Your task to perform on an android device: show emergency info Image 0: 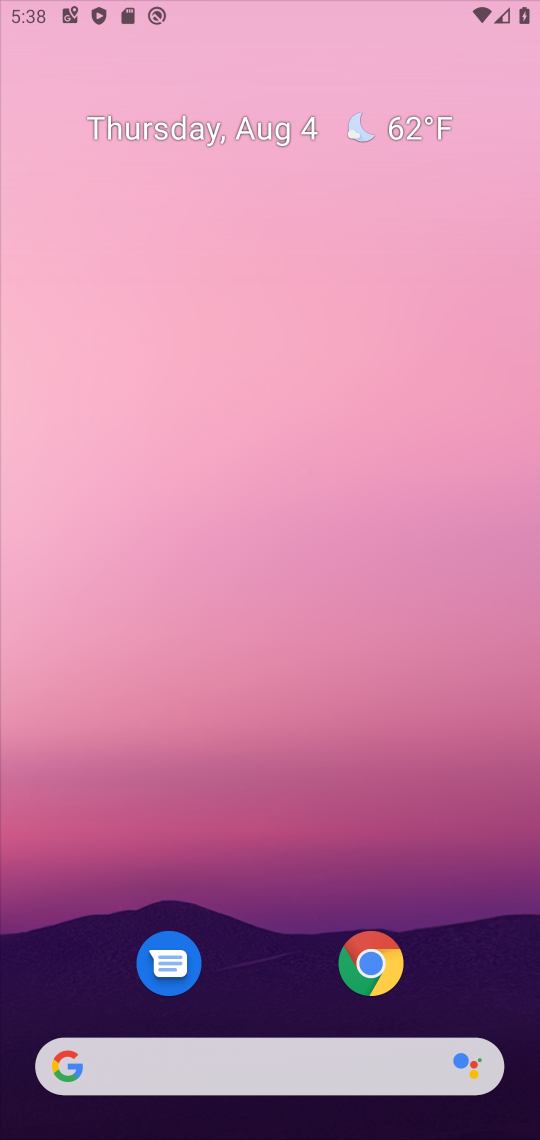
Step 0: press home button
Your task to perform on an android device: show emergency info Image 1: 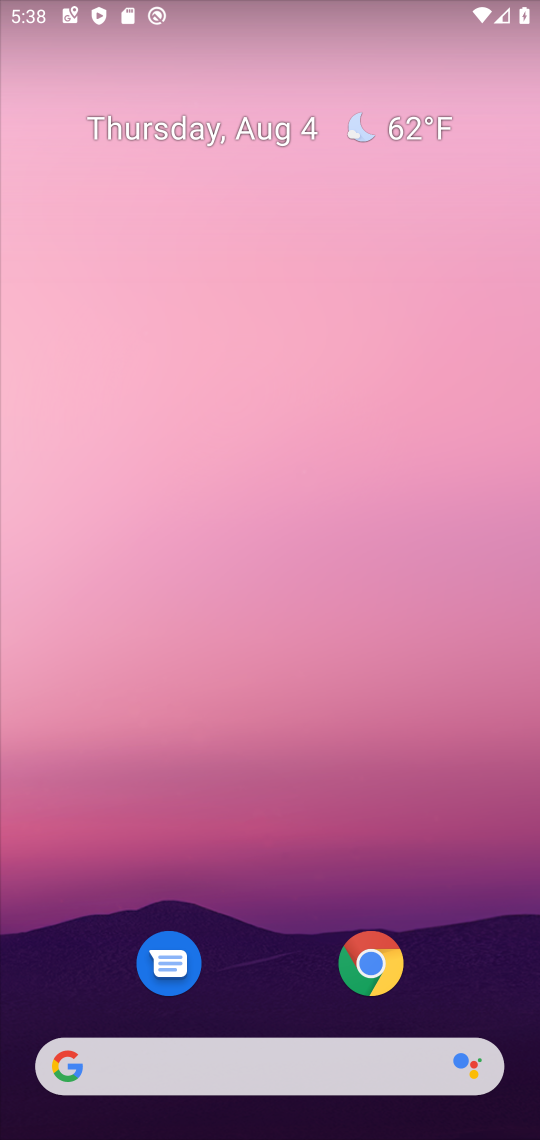
Step 1: drag from (250, 906) to (223, 98)
Your task to perform on an android device: show emergency info Image 2: 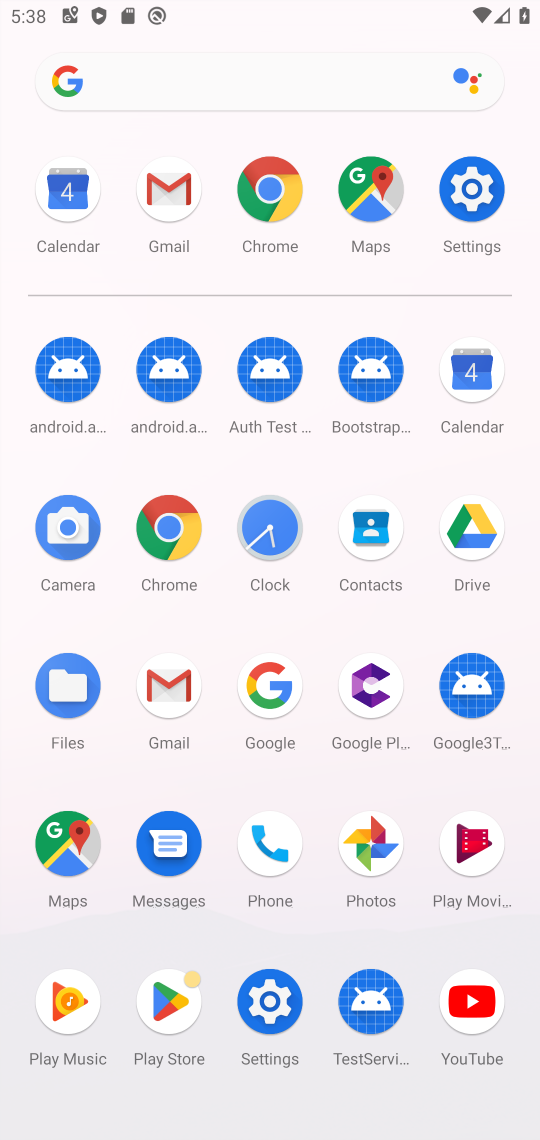
Step 2: click (473, 191)
Your task to perform on an android device: show emergency info Image 3: 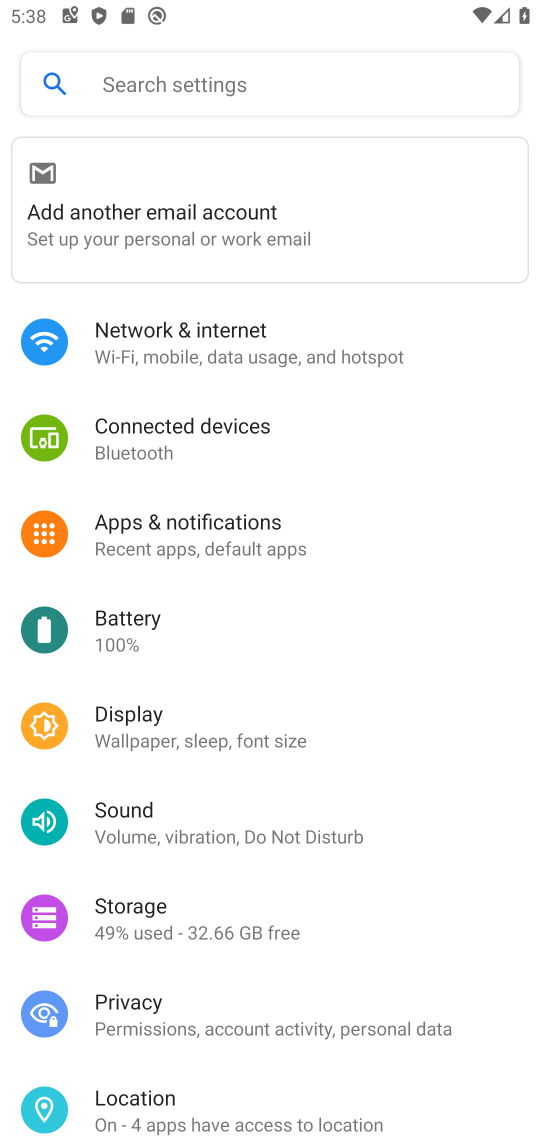
Step 3: drag from (275, 989) to (285, 240)
Your task to perform on an android device: show emergency info Image 4: 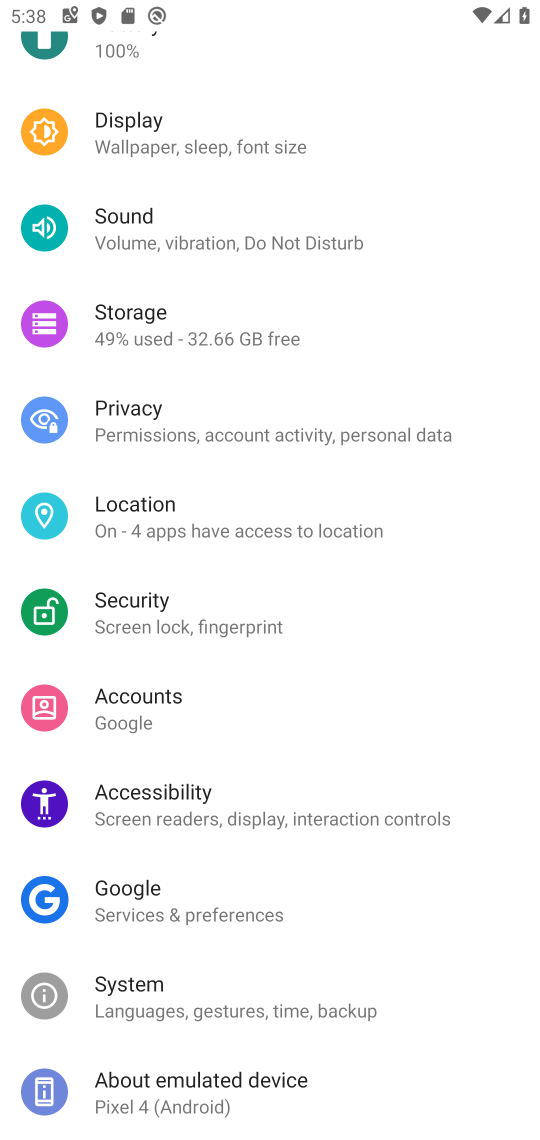
Step 4: click (200, 1072)
Your task to perform on an android device: show emergency info Image 5: 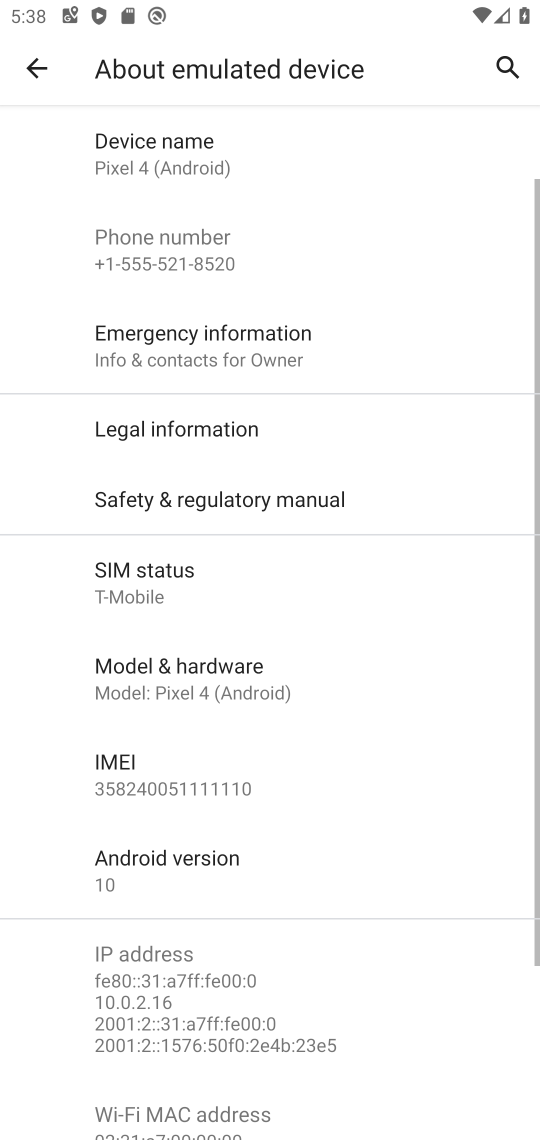
Step 5: click (188, 328)
Your task to perform on an android device: show emergency info Image 6: 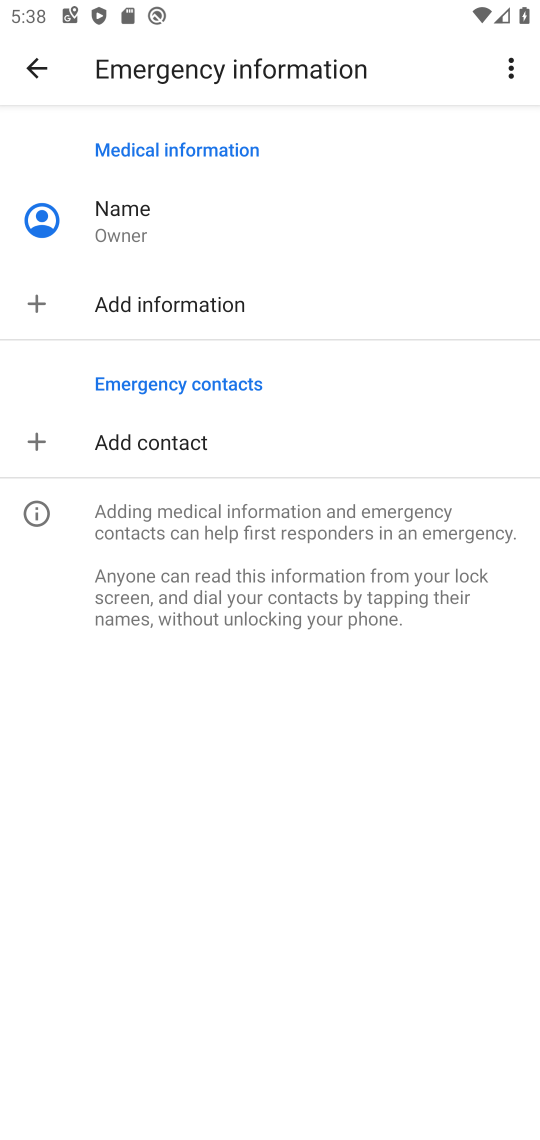
Step 6: task complete